Your task to perform on an android device: change notification settings in the gmail app Image 0: 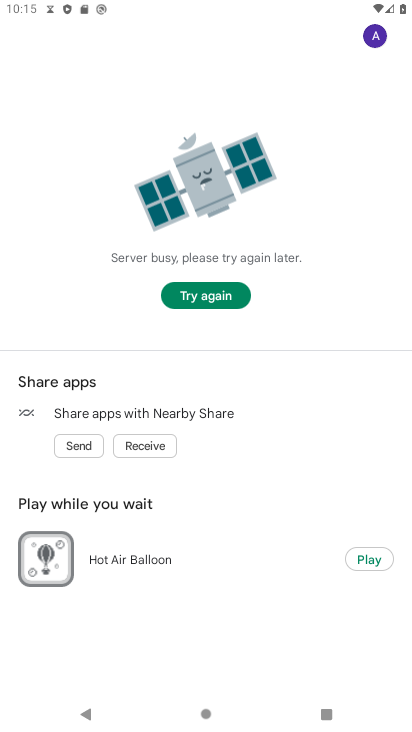
Step 0: press home button
Your task to perform on an android device: change notification settings in the gmail app Image 1: 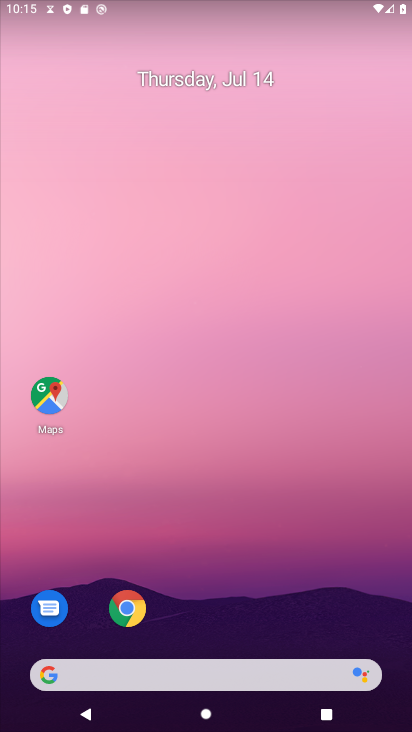
Step 1: drag from (250, 718) to (208, 201)
Your task to perform on an android device: change notification settings in the gmail app Image 2: 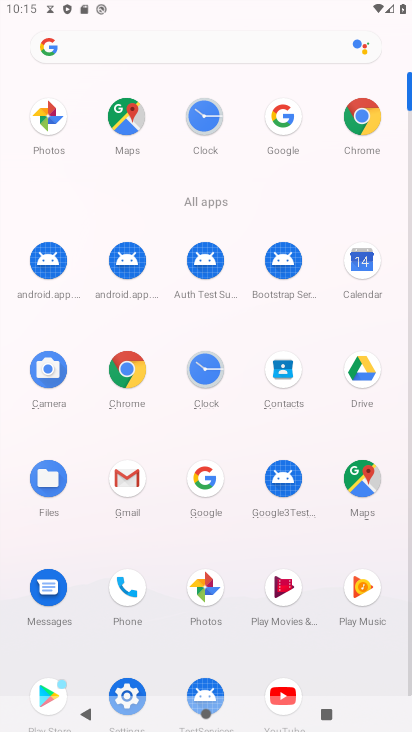
Step 2: click (122, 485)
Your task to perform on an android device: change notification settings in the gmail app Image 3: 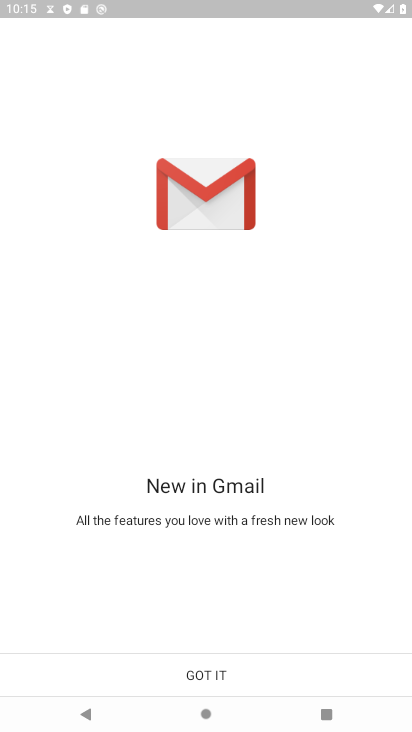
Step 3: click (197, 673)
Your task to perform on an android device: change notification settings in the gmail app Image 4: 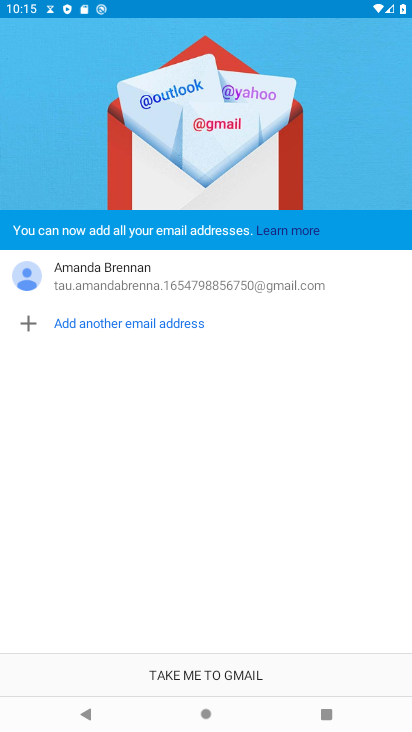
Step 4: click (197, 673)
Your task to perform on an android device: change notification settings in the gmail app Image 5: 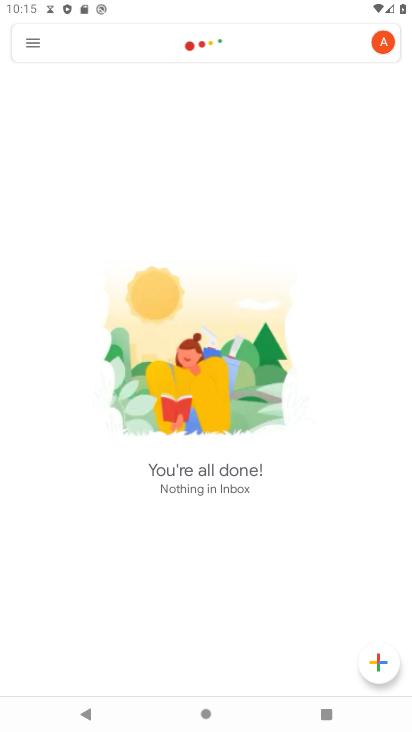
Step 5: click (32, 40)
Your task to perform on an android device: change notification settings in the gmail app Image 6: 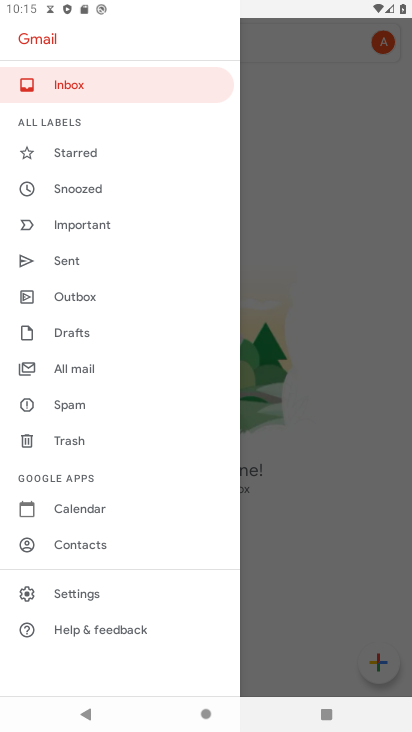
Step 6: click (65, 585)
Your task to perform on an android device: change notification settings in the gmail app Image 7: 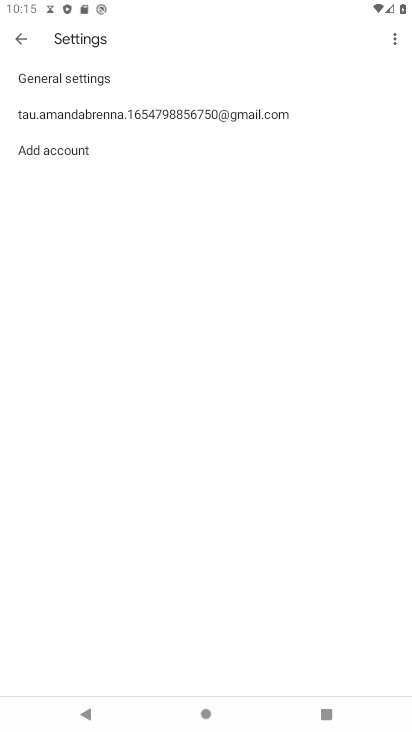
Step 7: click (136, 106)
Your task to perform on an android device: change notification settings in the gmail app Image 8: 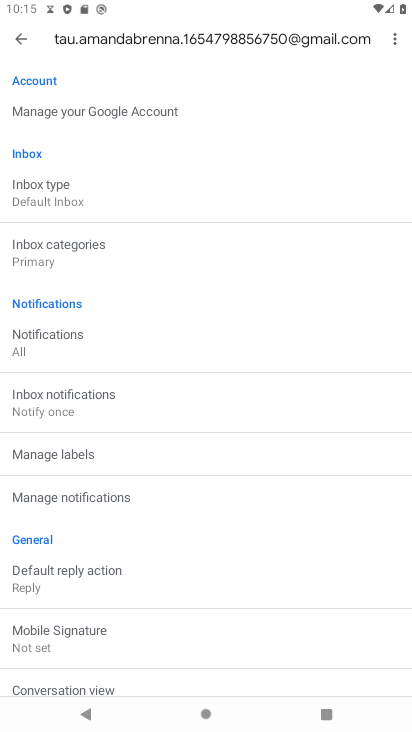
Step 8: click (33, 337)
Your task to perform on an android device: change notification settings in the gmail app Image 9: 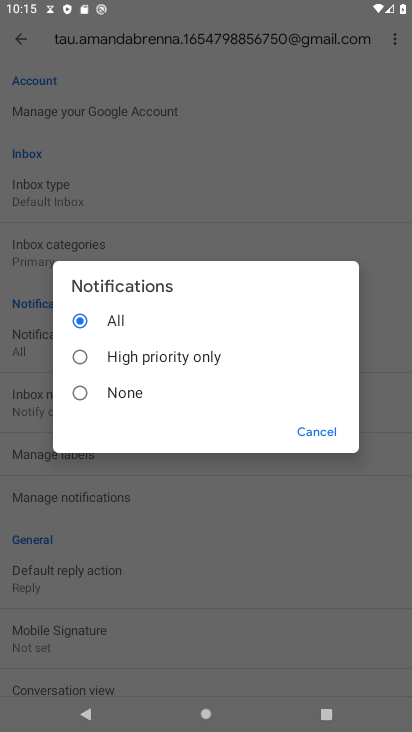
Step 9: click (82, 385)
Your task to perform on an android device: change notification settings in the gmail app Image 10: 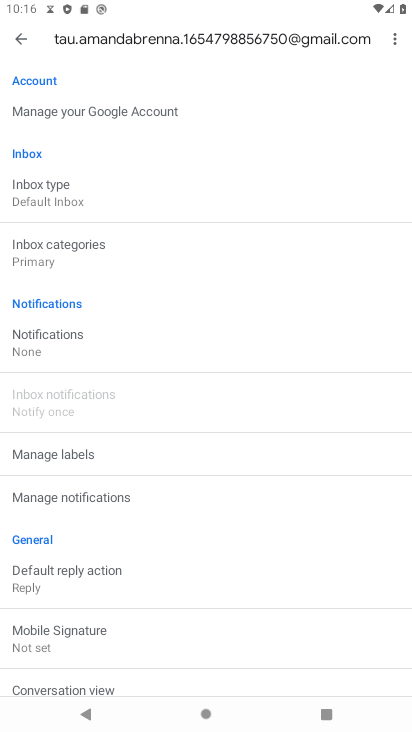
Step 10: task complete